Your task to perform on an android device: Go to accessibility settings Image 0: 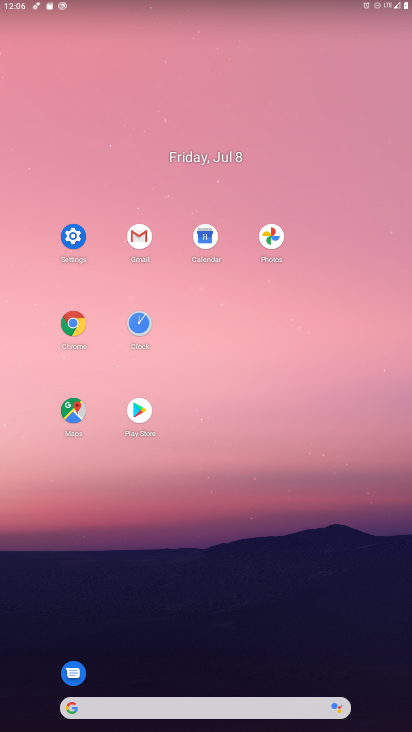
Step 0: click (68, 228)
Your task to perform on an android device: Go to accessibility settings Image 1: 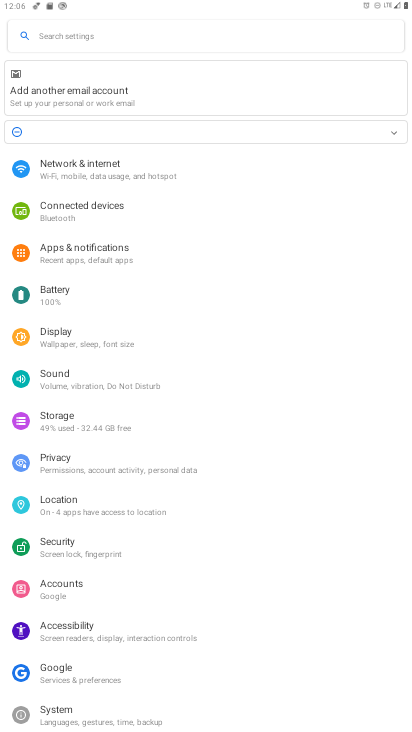
Step 1: click (195, 635)
Your task to perform on an android device: Go to accessibility settings Image 2: 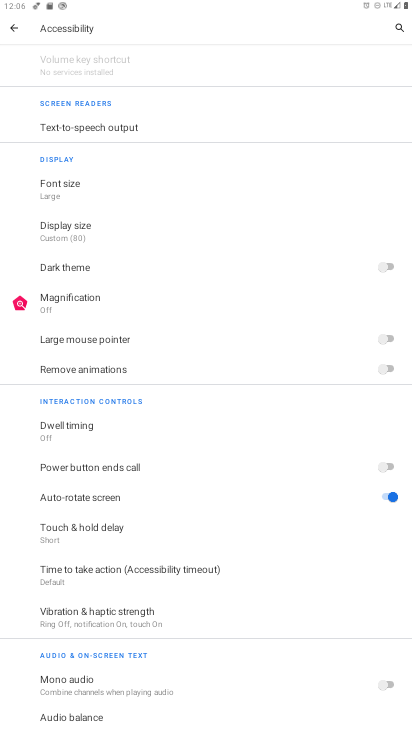
Step 2: task complete